Your task to perform on an android device: Show me productivity apps on the Play Store Image 0: 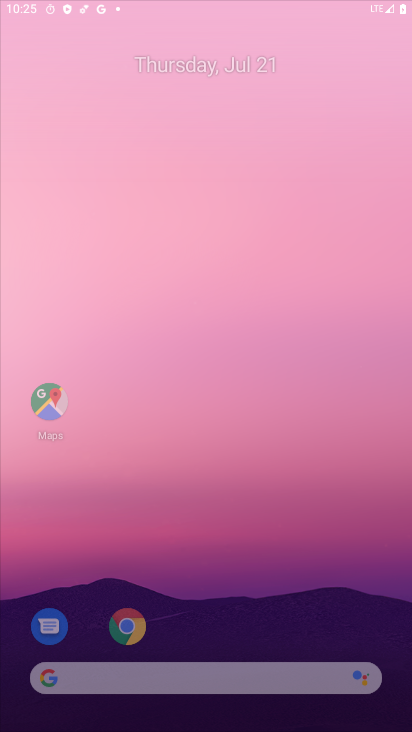
Step 0: press home button
Your task to perform on an android device: Show me productivity apps on the Play Store Image 1: 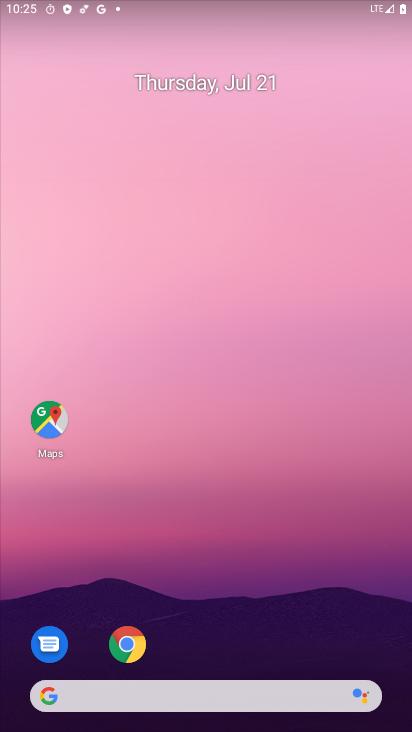
Step 1: drag from (208, 654) to (212, 0)
Your task to perform on an android device: Show me productivity apps on the Play Store Image 2: 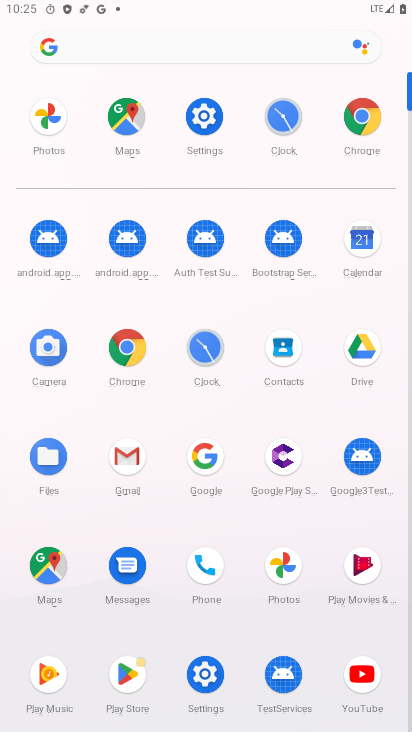
Step 2: click (124, 671)
Your task to perform on an android device: Show me productivity apps on the Play Store Image 3: 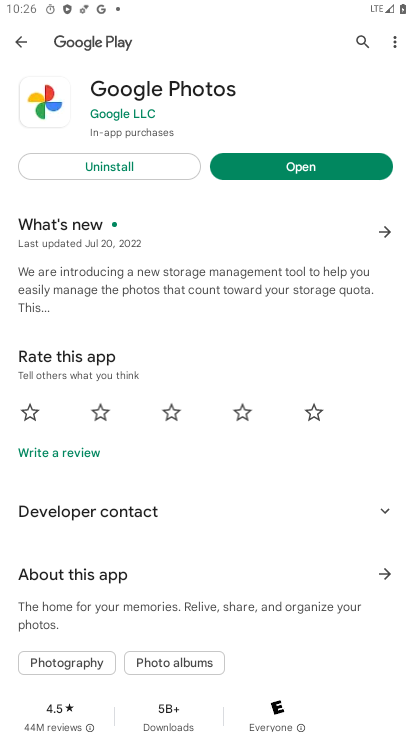
Step 3: click (13, 43)
Your task to perform on an android device: Show me productivity apps on the Play Store Image 4: 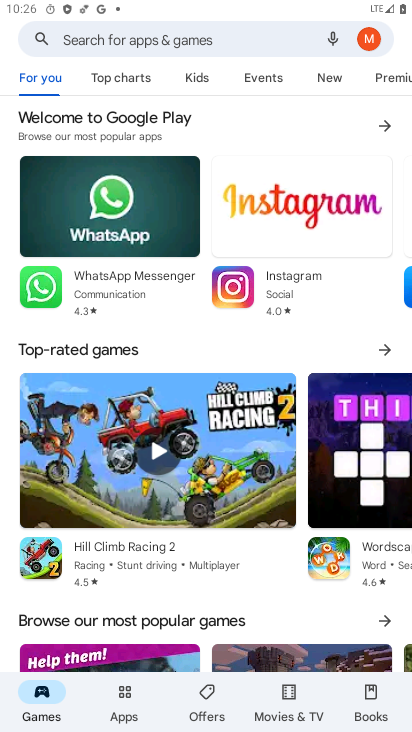
Step 4: click (126, 688)
Your task to perform on an android device: Show me productivity apps on the Play Store Image 5: 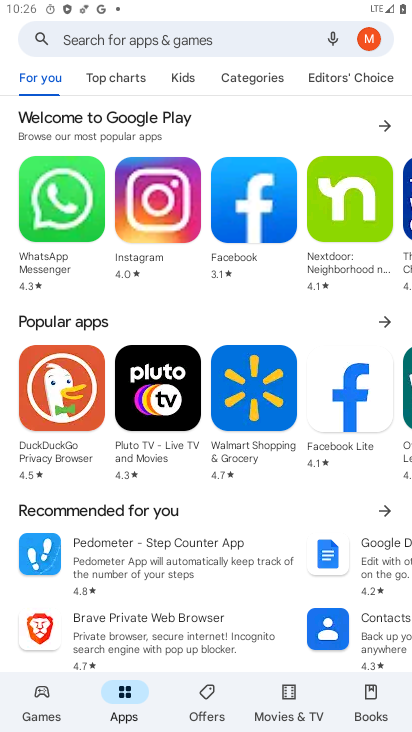
Step 5: click (269, 84)
Your task to perform on an android device: Show me productivity apps on the Play Store Image 6: 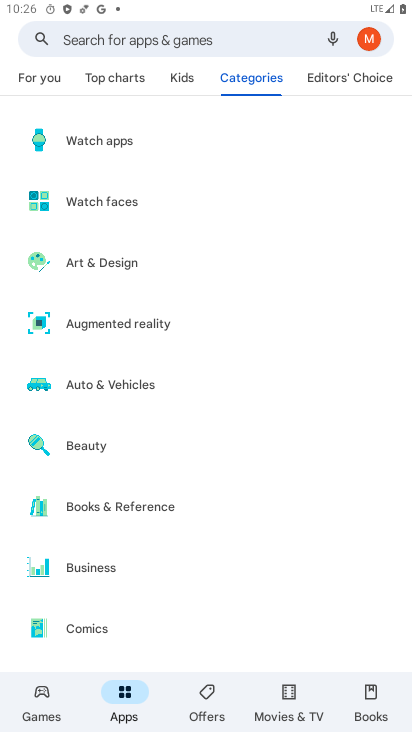
Step 6: drag from (137, 610) to (182, 123)
Your task to perform on an android device: Show me productivity apps on the Play Store Image 7: 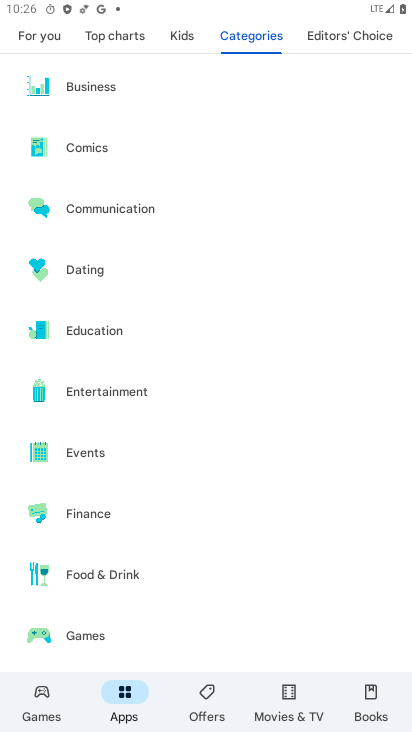
Step 7: drag from (145, 638) to (164, 125)
Your task to perform on an android device: Show me productivity apps on the Play Store Image 8: 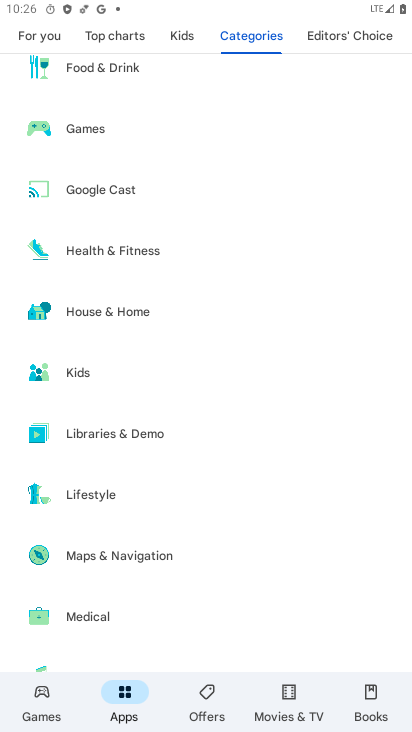
Step 8: drag from (145, 625) to (188, 175)
Your task to perform on an android device: Show me productivity apps on the Play Store Image 9: 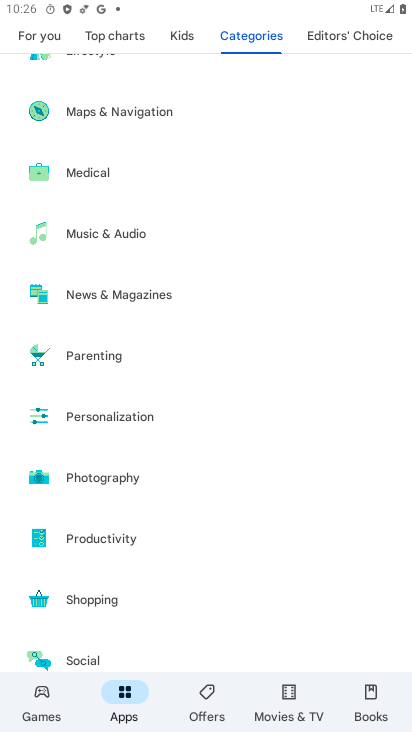
Step 9: click (146, 530)
Your task to perform on an android device: Show me productivity apps on the Play Store Image 10: 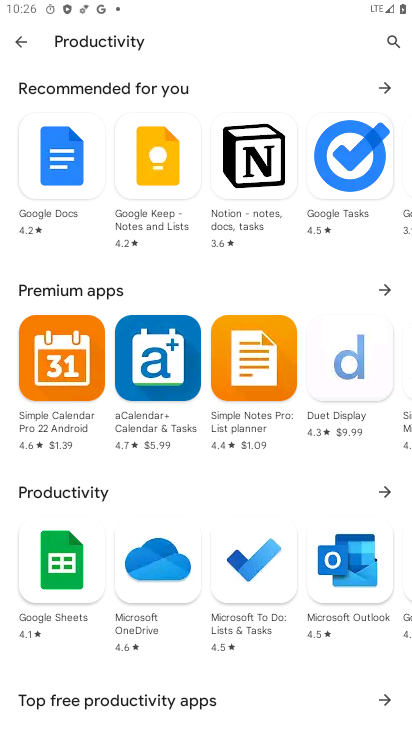
Step 10: click (383, 485)
Your task to perform on an android device: Show me productivity apps on the Play Store Image 11: 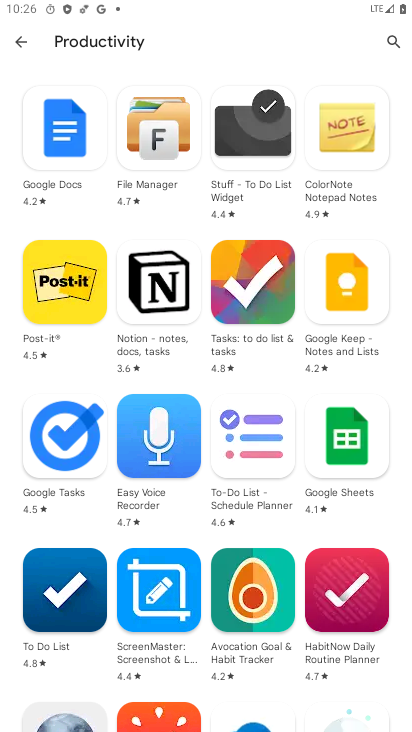
Step 11: task complete